Your task to perform on an android device: read, delete, or share a saved page in the chrome app Image 0: 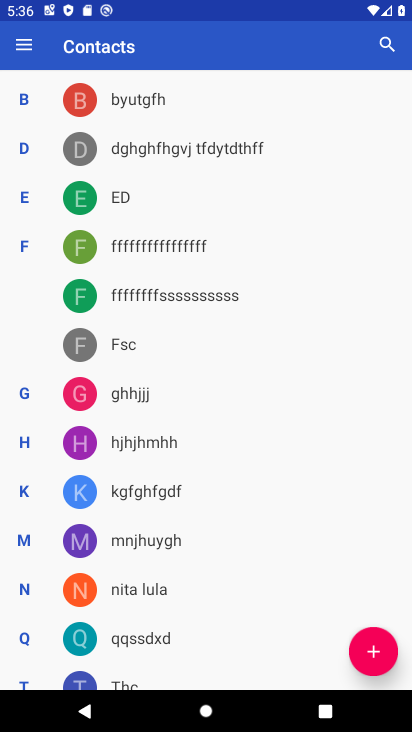
Step 0: press home button
Your task to perform on an android device: read, delete, or share a saved page in the chrome app Image 1: 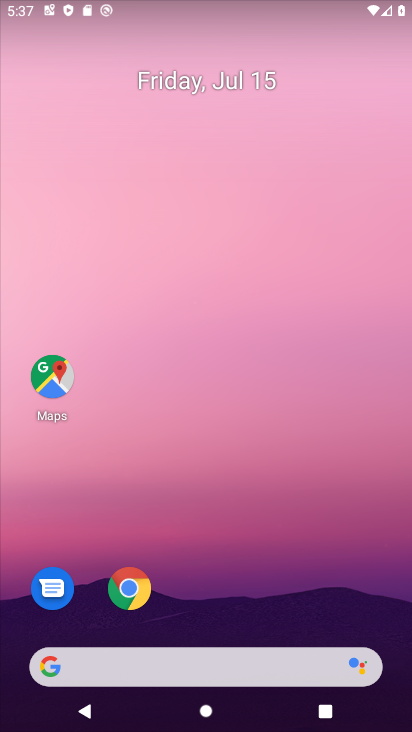
Step 1: drag from (338, 647) to (330, 7)
Your task to perform on an android device: read, delete, or share a saved page in the chrome app Image 2: 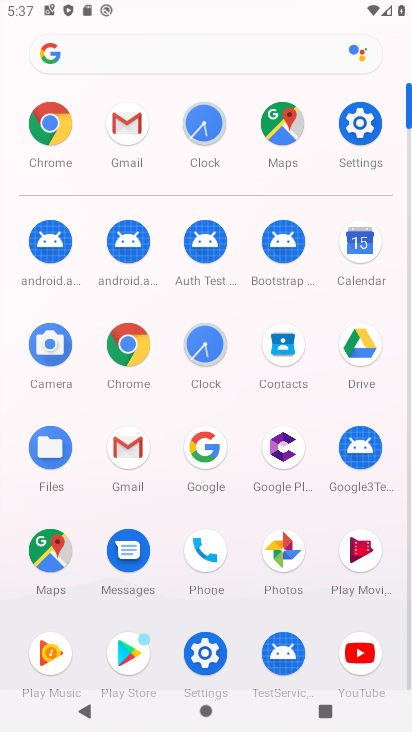
Step 2: click (125, 350)
Your task to perform on an android device: read, delete, or share a saved page in the chrome app Image 3: 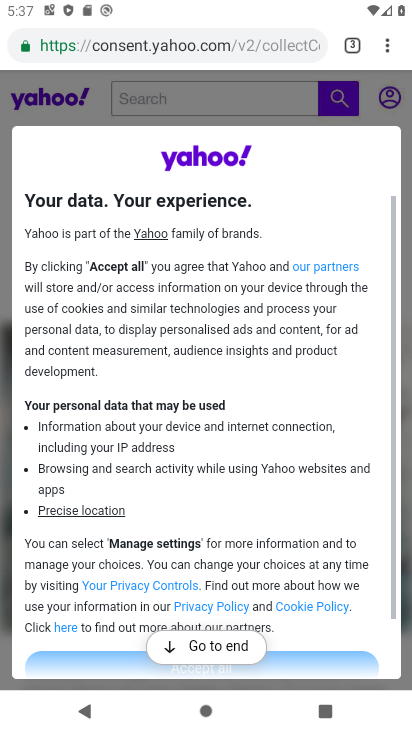
Step 3: click (385, 40)
Your task to perform on an android device: read, delete, or share a saved page in the chrome app Image 4: 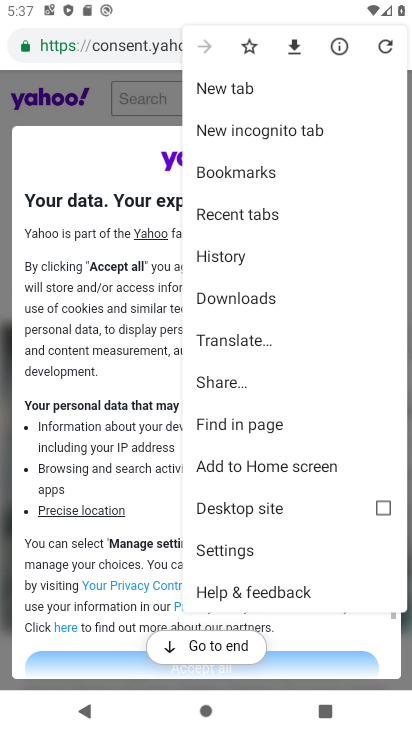
Step 4: click (230, 298)
Your task to perform on an android device: read, delete, or share a saved page in the chrome app Image 5: 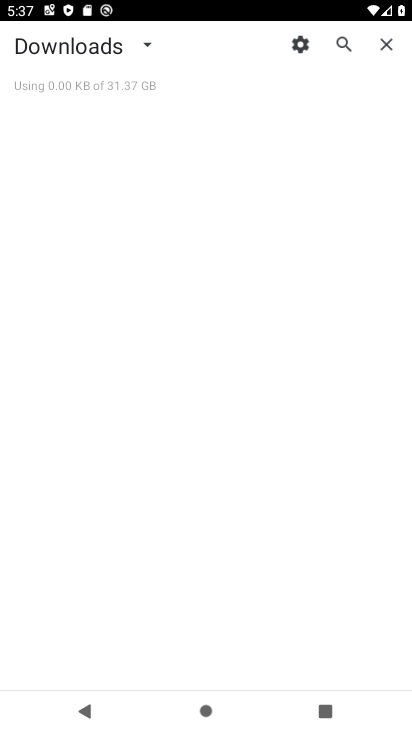
Step 5: task complete